Your task to perform on an android device: Go to sound settings Image 0: 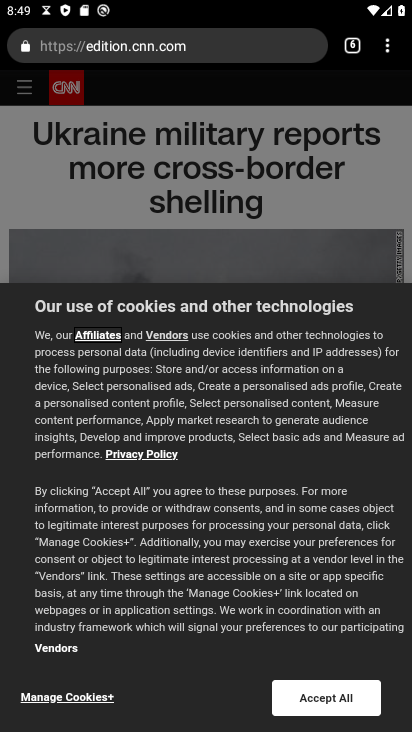
Step 0: press home button
Your task to perform on an android device: Go to sound settings Image 1: 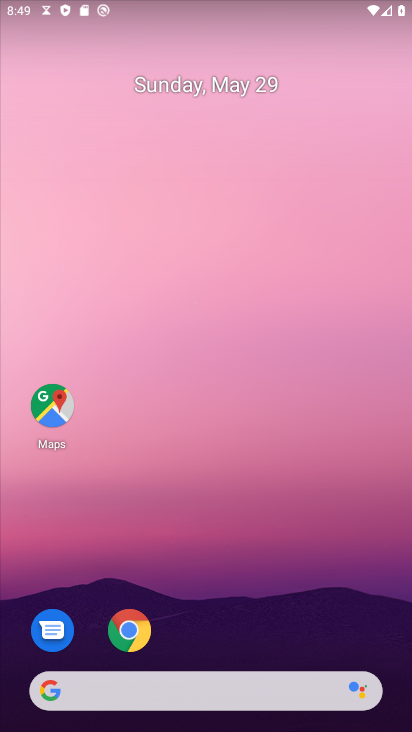
Step 1: drag from (266, 614) to (256, 303)
Your task to perform on an android device: Go to sound settings Image 2: 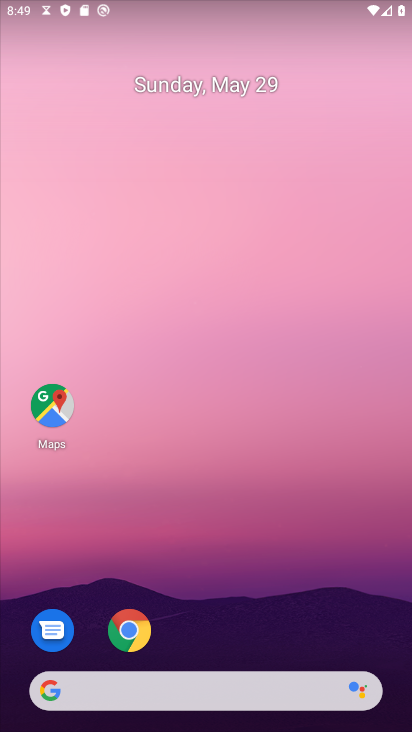
Step 2: drag from (282, 585) to (256, 208)
Your task to perform on an android device: Go to sound settings Image 3: 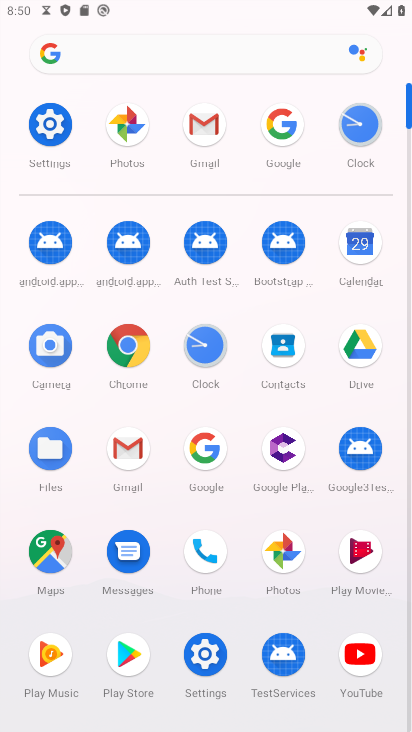
Step 3: click (55, 117)
Your task to perform on an android device: Go to sound settings Image 4: 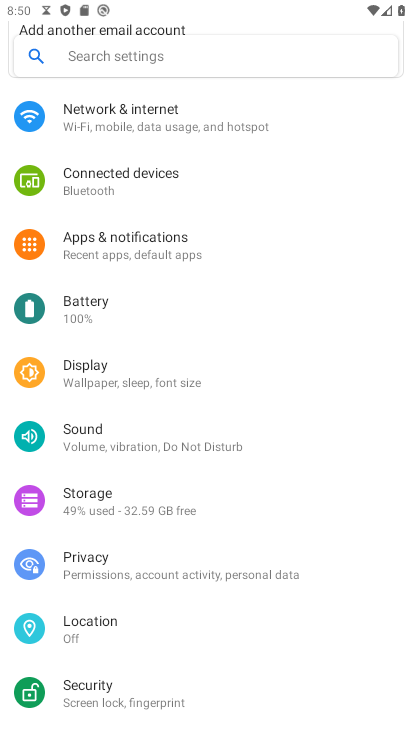
Step 4: click (111, 433)
Your task to perform on an android device: Go to sound settings Image 5: 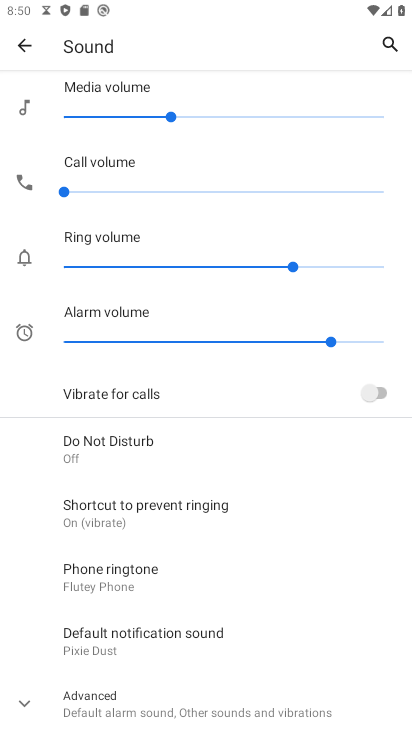
Step 5: task complete